Your task to perform on an android device: clear history in the chrome app Image 0: 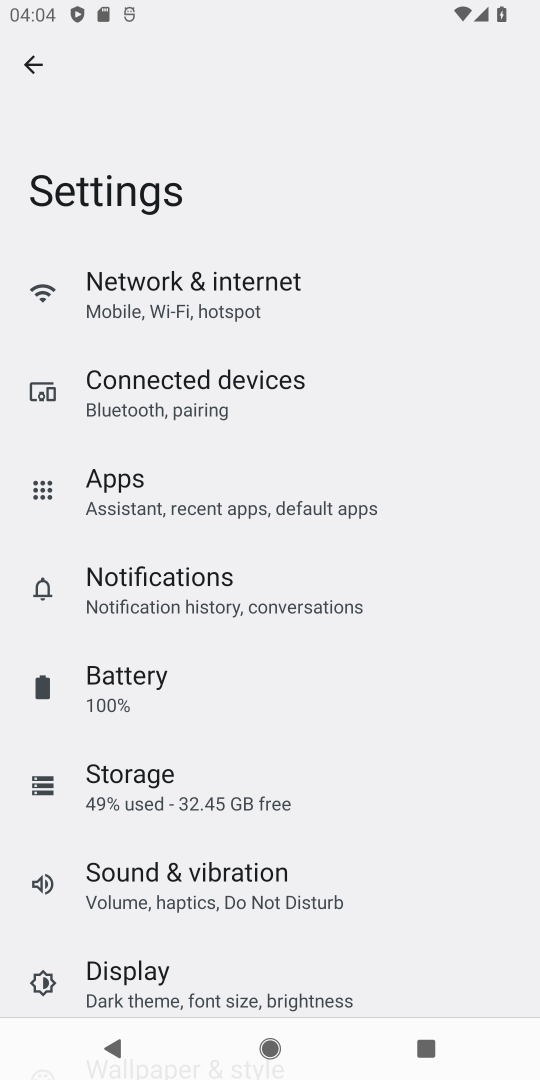
Step 0: press home button
Your task to perform on an android device: clear history in the chrome app Image 1: 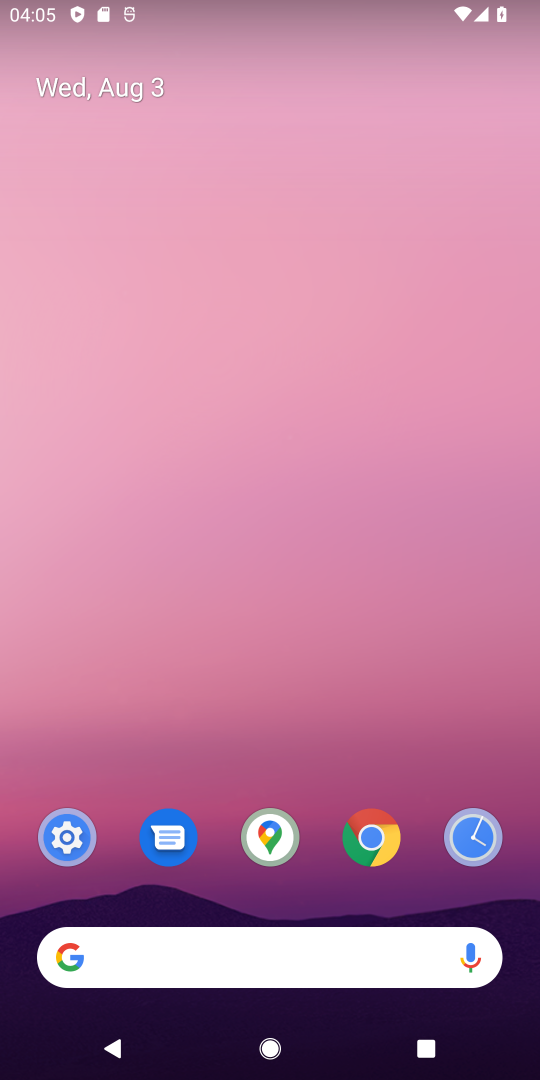
Step 1: click (372, 840)
Your task to perform on an android device: clear history in the chrome app Image 2: 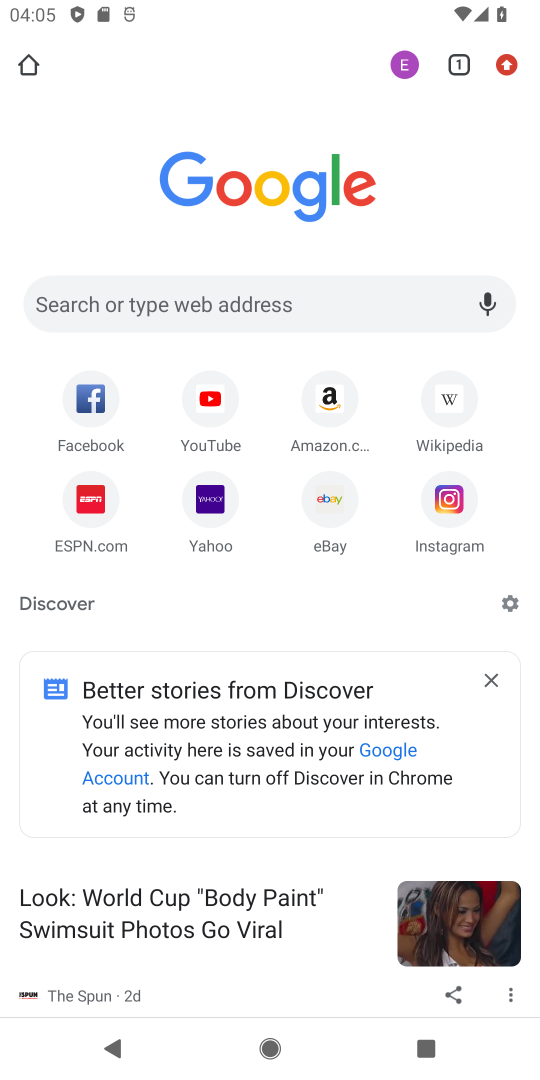
Step 2: click (505, 68)
Your task to perform on an android device: clear history in the chrome app Image 3: 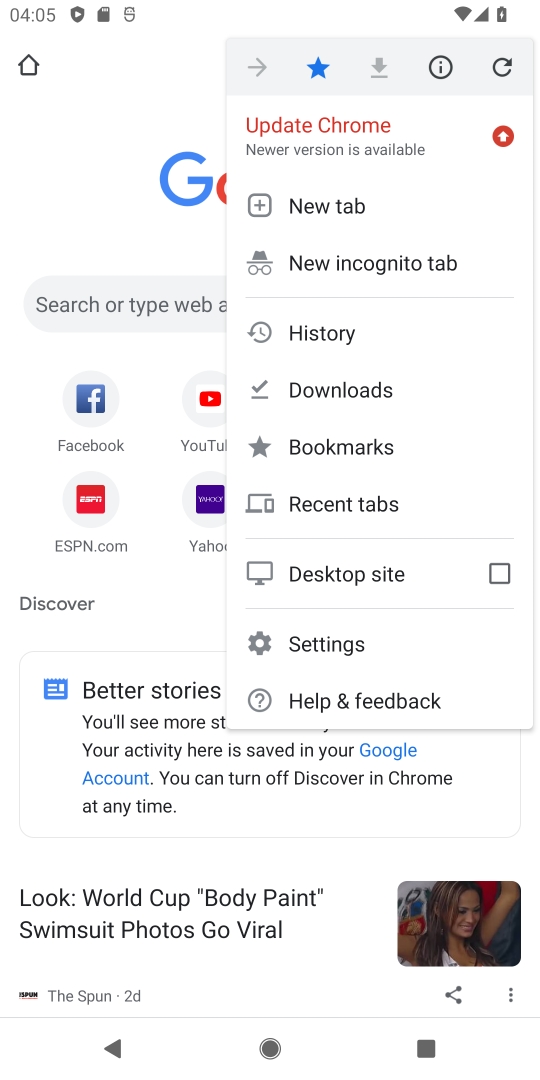
Step 3: click (331, 332)
Your task to perform on an android device: clear history in the chrome app Image 4: 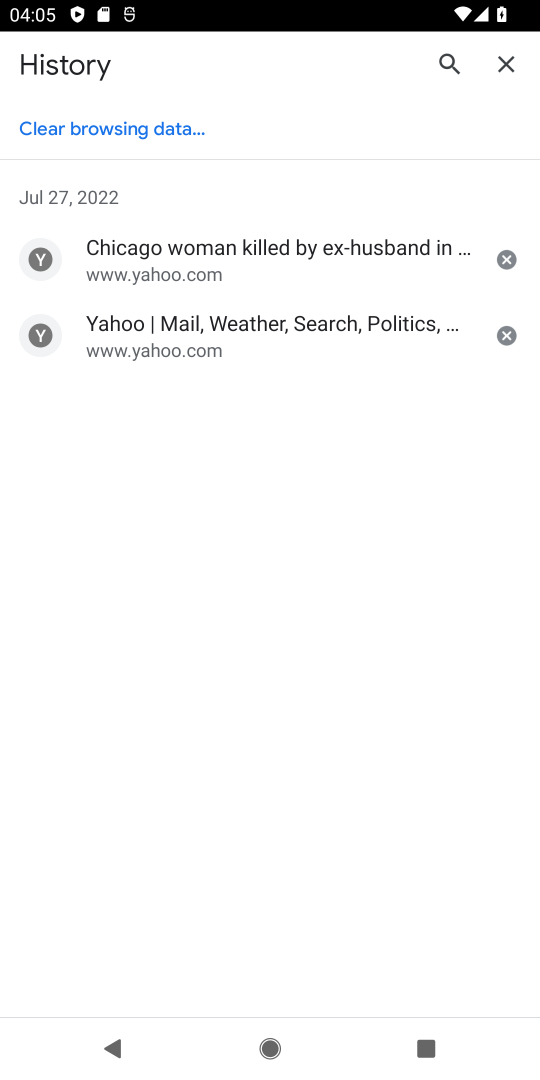
Step 4: click (120, 132)
Your task to perform on an android device: clear history in the chrome app Image 5: 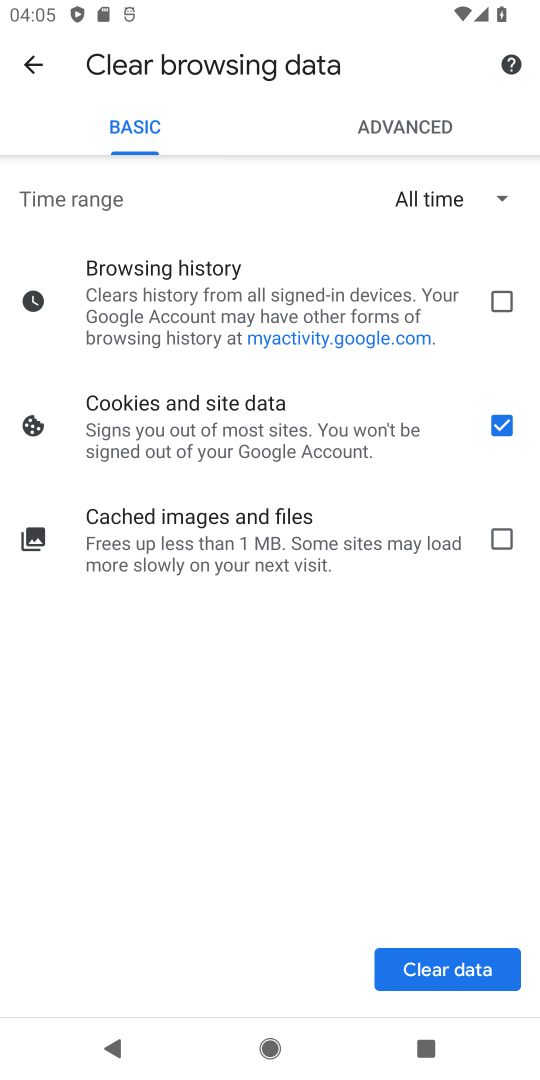
Step 5: click (506, 300)
Your task to perform on an android device: clear history in the chrome app Image 6: 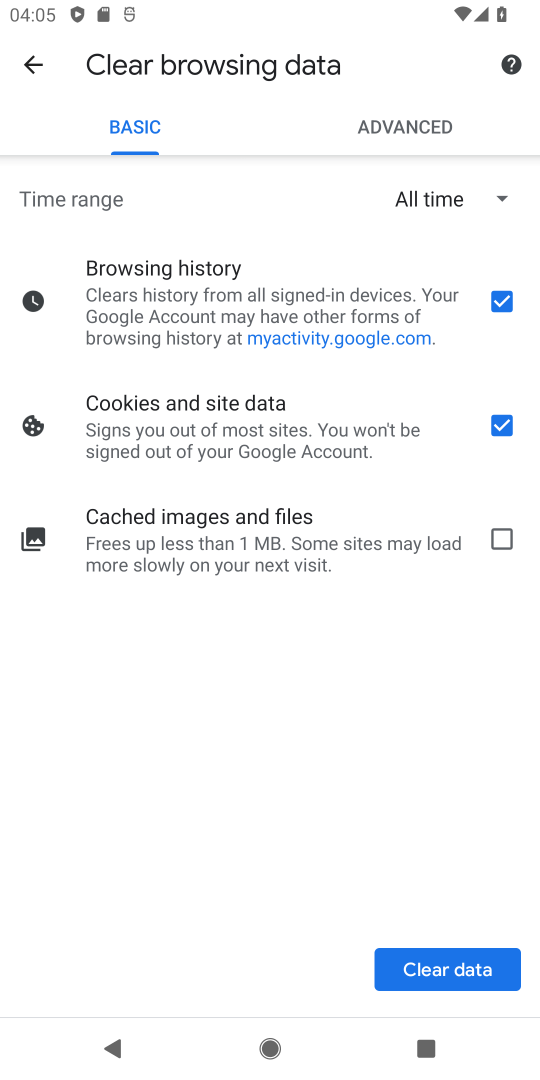
Step 6: click (501, 429)
Your task to perform on an android device: clear history in the chrome app Image 7: 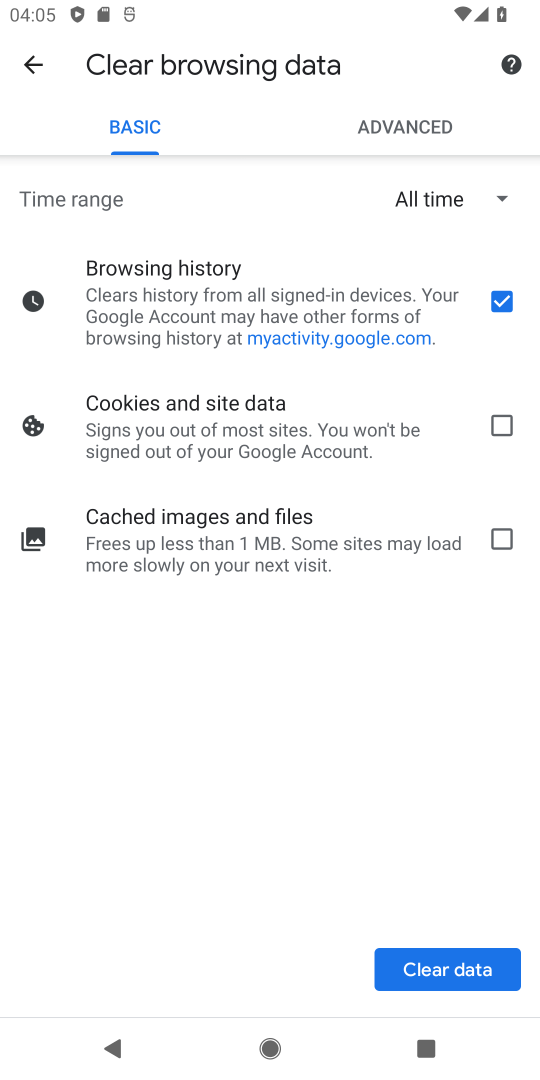
Step 7: click (445, 971)
Your task to perform on an android device: clear history in the chrome app Image 8: 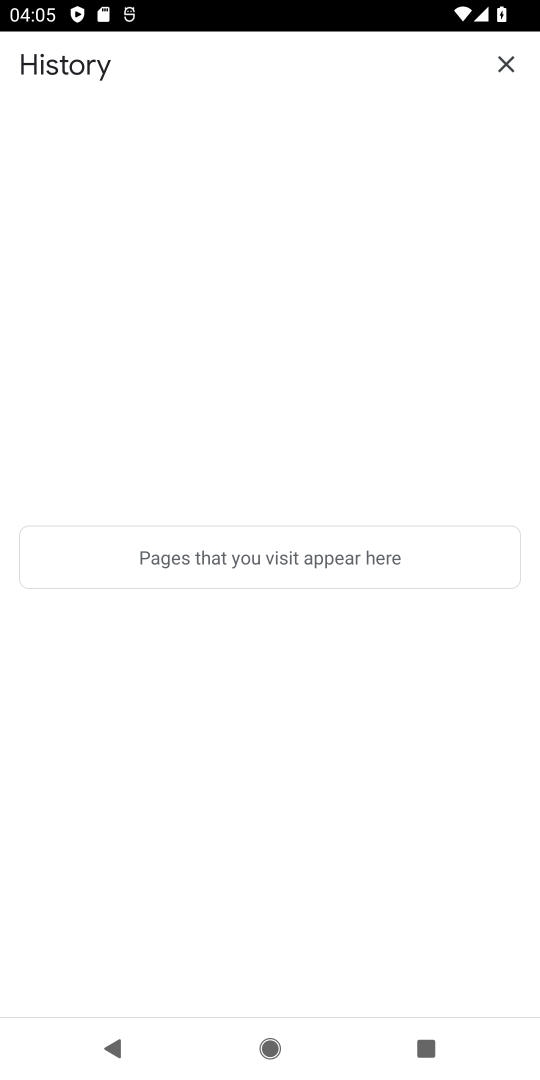
Step 8: task complete